Your task to perform on an android device: toggle airplane mode Image 0: 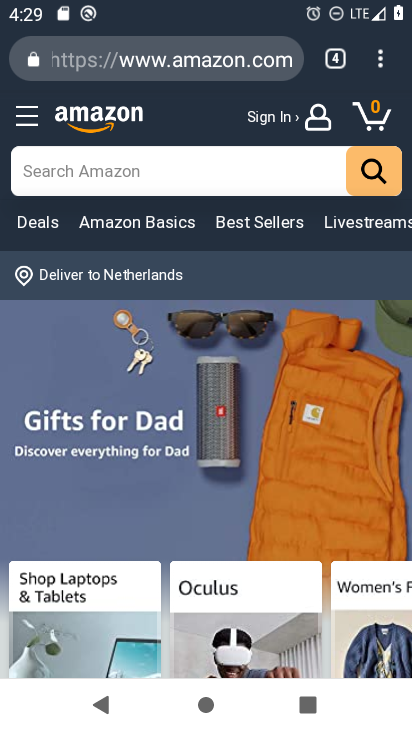
Step 0: press home button
Your task to perform on an android device: toggle airplane mode Image 1: 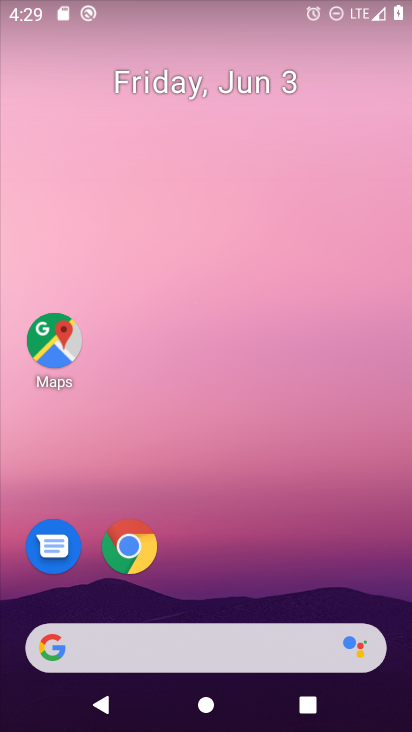
Step 1: drag from (220, 575) to (265, 28)
Your task to perform on an android device: toggle airplane mode Image 2: 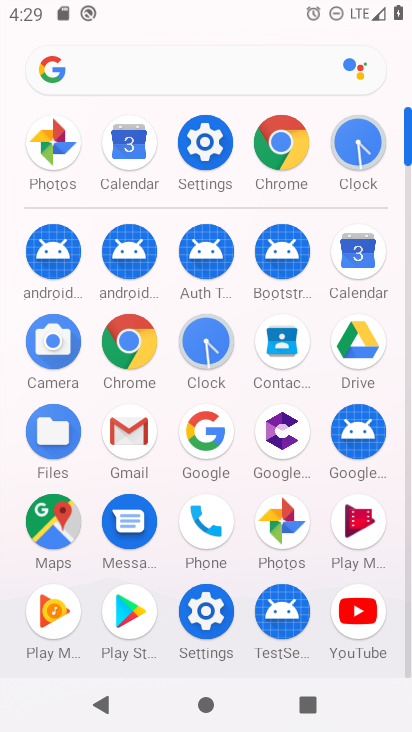
Step 2: click (211, 135)
Your task to perform on an android device: toggle airplane mode Image 3: 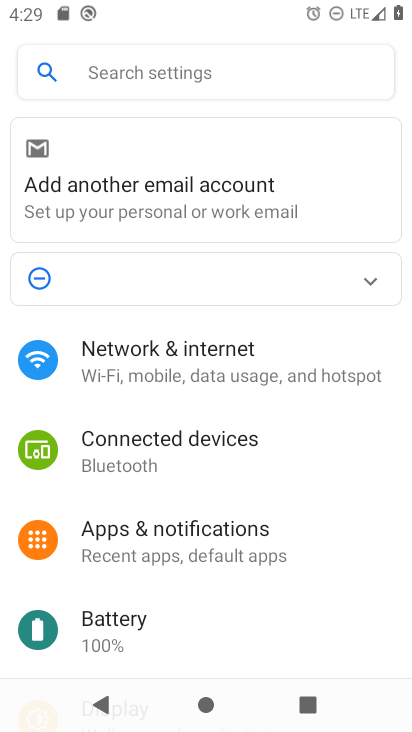
Step 3: click (202, 357)
Your task to perform on an android device: toggle airplane mode Image 4: 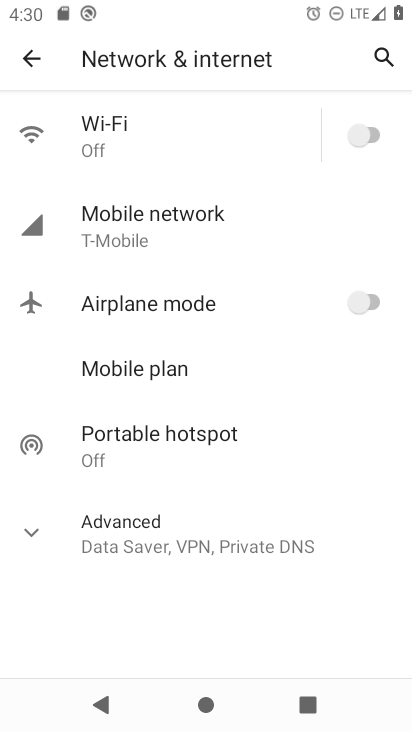
Step 4: click (368, 300)
Your task to perform on an android device: toggle airplane mode Image 5: 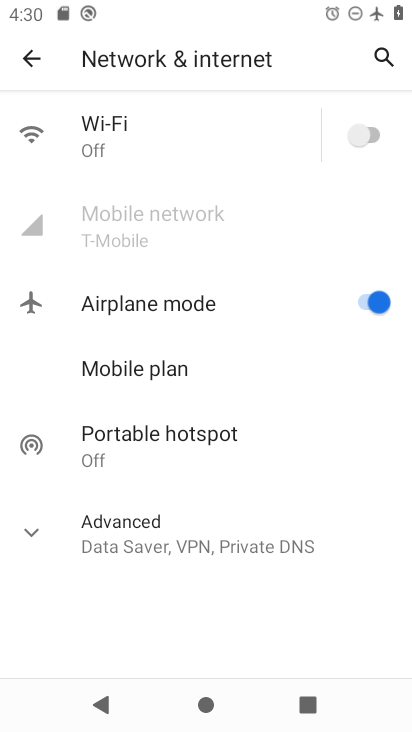
Step 5: task complete